Your task to perform on an android device: Is it going to rain this weekend? Image 0: 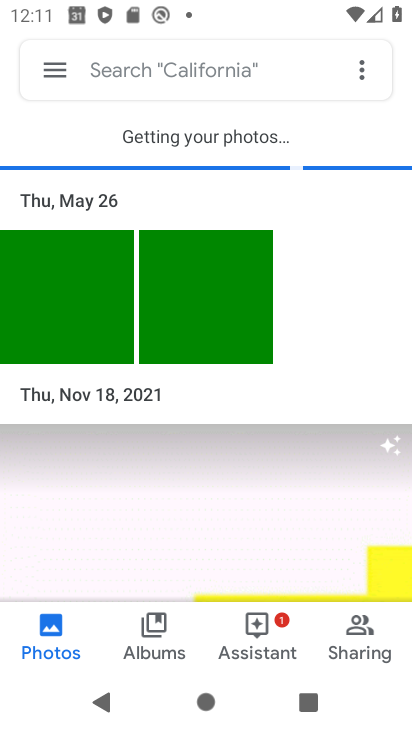
Step 0: press home button
Your task to perform on an android device: Is it going to rain this weekend? Image 1: 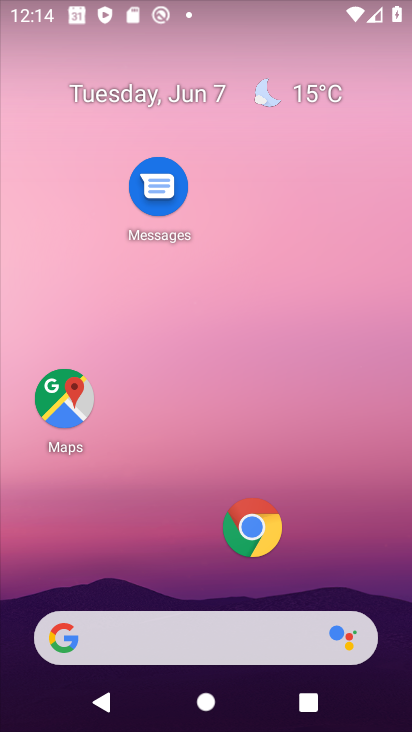
Step 1: drag from (236, 618) to (231, 180)
Your task to perform on an android device: Is it going to rain this weekend? Image 2: 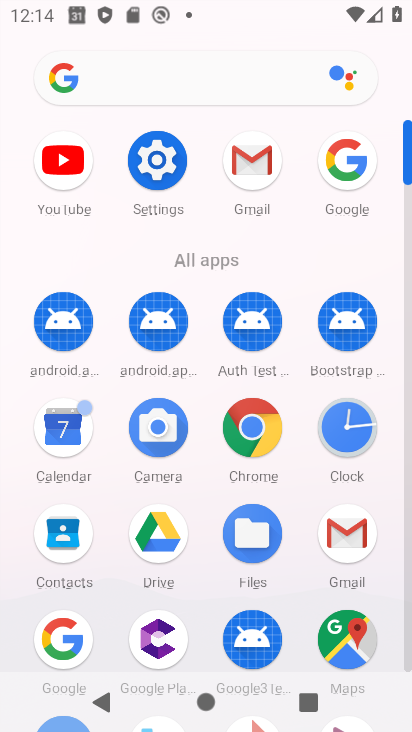
Step 2: click (61, 634)
Your task to perform on an android device: Is it going to rain this weekend? Image 3: 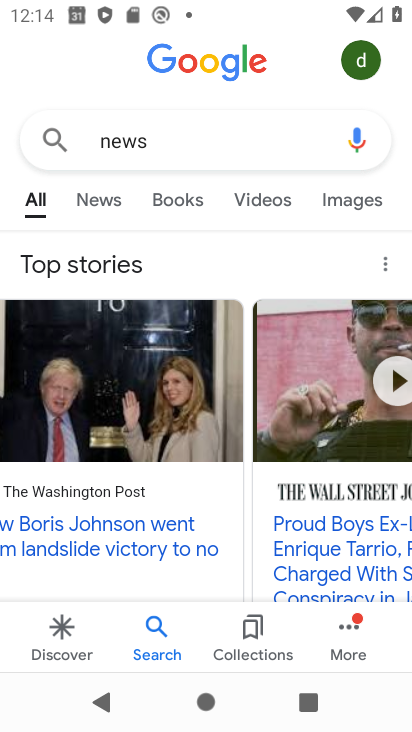
Step 3: click (159, 142)
Your task to perform on an android device: Is it going to rain this weekend? Image 4: 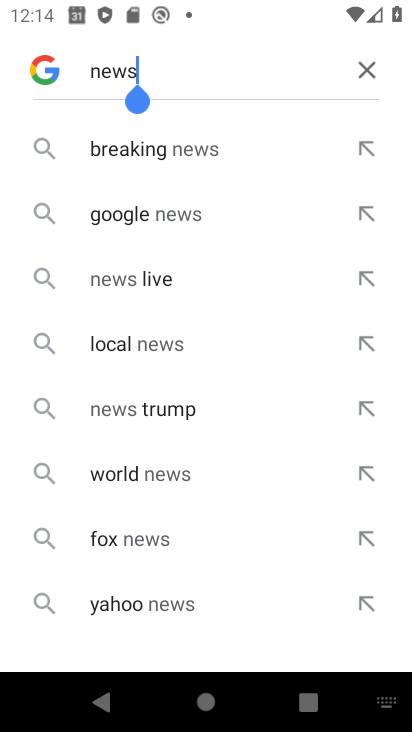
Step 4: click (366, 67)
Your task to perform on an android device: Is it going to rain this weekend? Image 5: 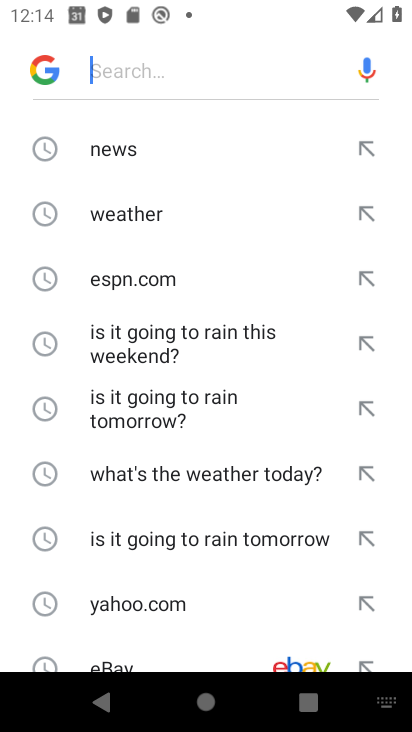
Step 5: click (193, 338)
Your task to perform on an android device: Is it going to rain this weekend? Image 6: 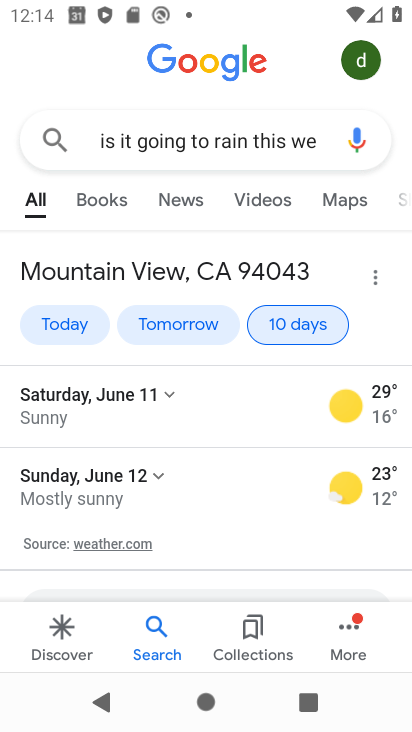
Step 6: drag from (201, 552) to (192, 249)
Your task to perform on an android device: Is it going to rain this weekend? Image 7: 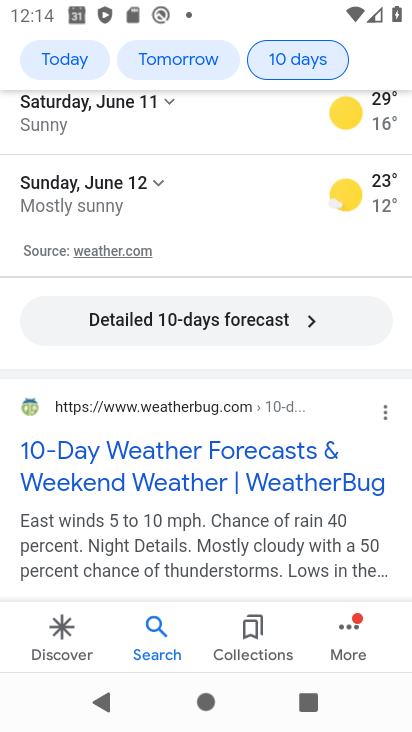
Step 7: click (169, 340)
Your task to perform on an android device: Is it going to rain this weekend? Image 8: 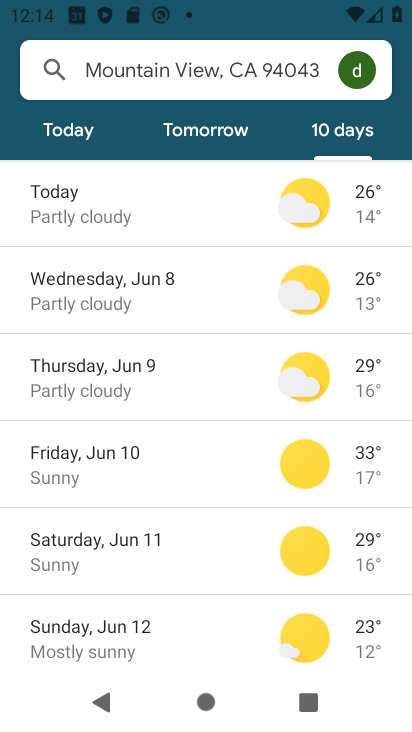
Step 8: task complete